Your task to perform on an android device: Is it going to rain tomorrow? Image 0: 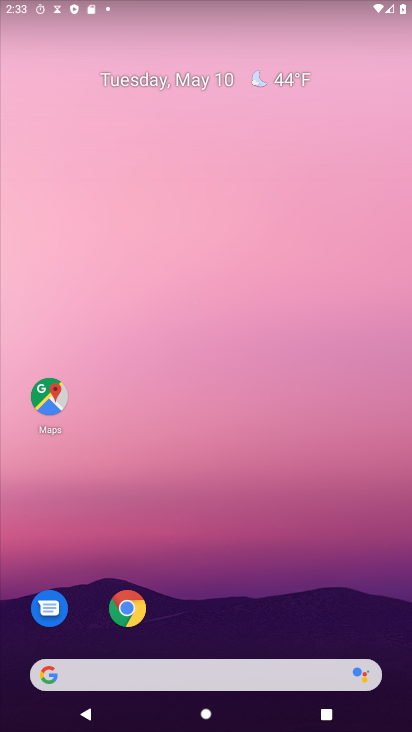
Step 0: click (283, 74)
Your task to perform on an android device: Is it going to rain tomorrow? Image 1: 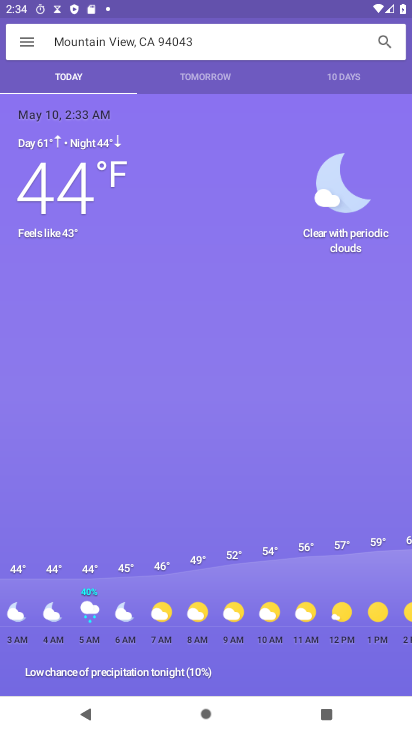
Step 1: click (202, 76)
Your task to perform on an android device: Is it going to rain tomorrow? Image 2: 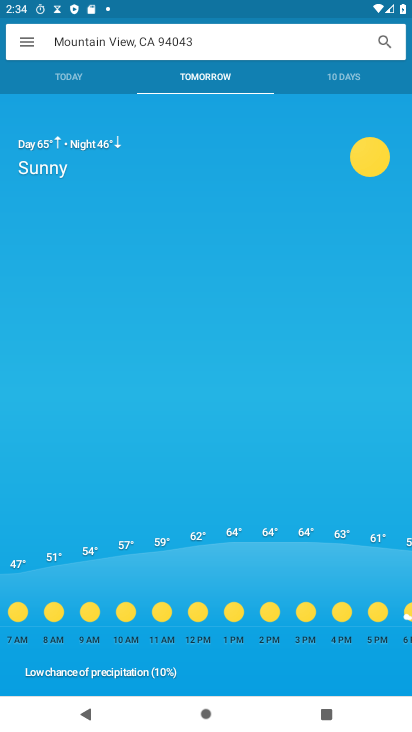
Step 2: task complete